Your task to perform on an android device: Go to Maps Image 0: 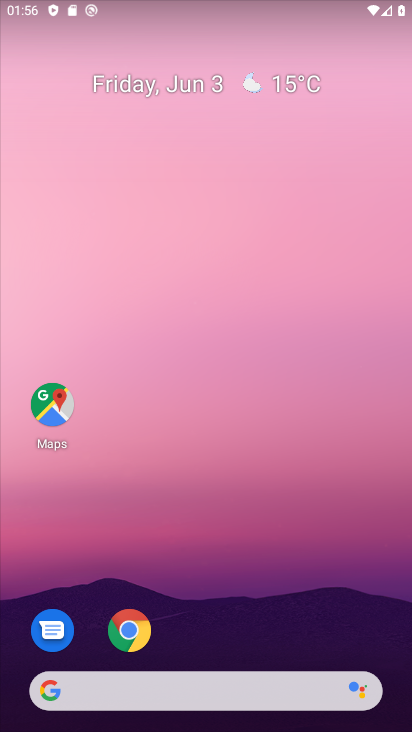
Step 0: click (41, 407)
Your task to perform on an android device: Go to Maps Image 1: 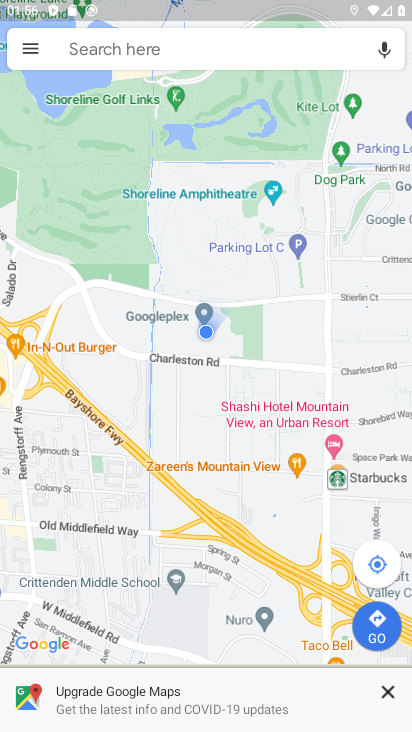
Step 1: task complete